Your task to perform on an android device: Go to Maps Image 0: 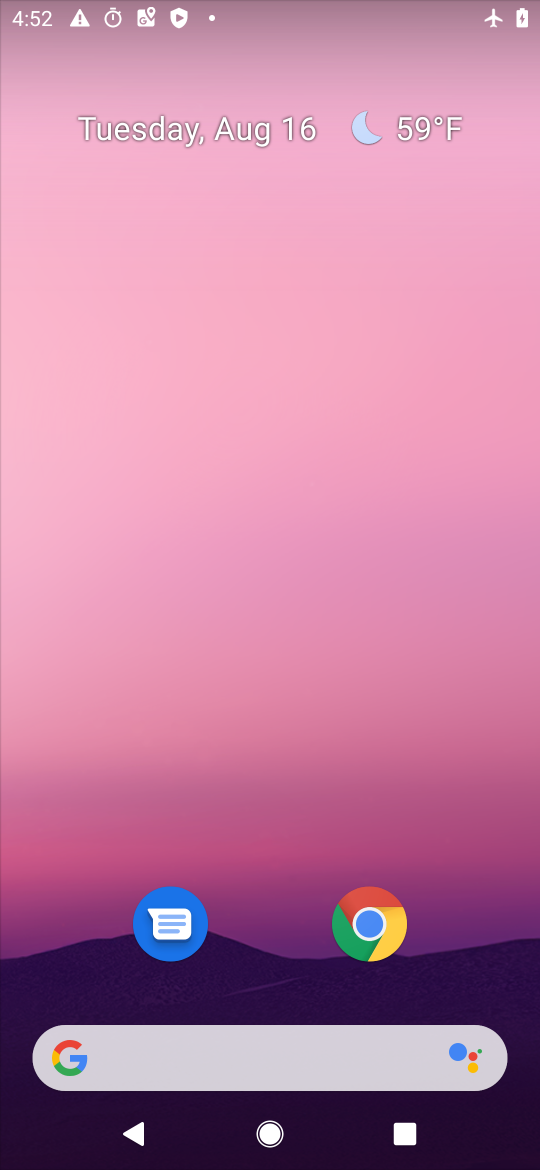
Step 0: drag from (268, 969) to (174, 324)
Your task to perform on an android device: Go to Maps Image 1: 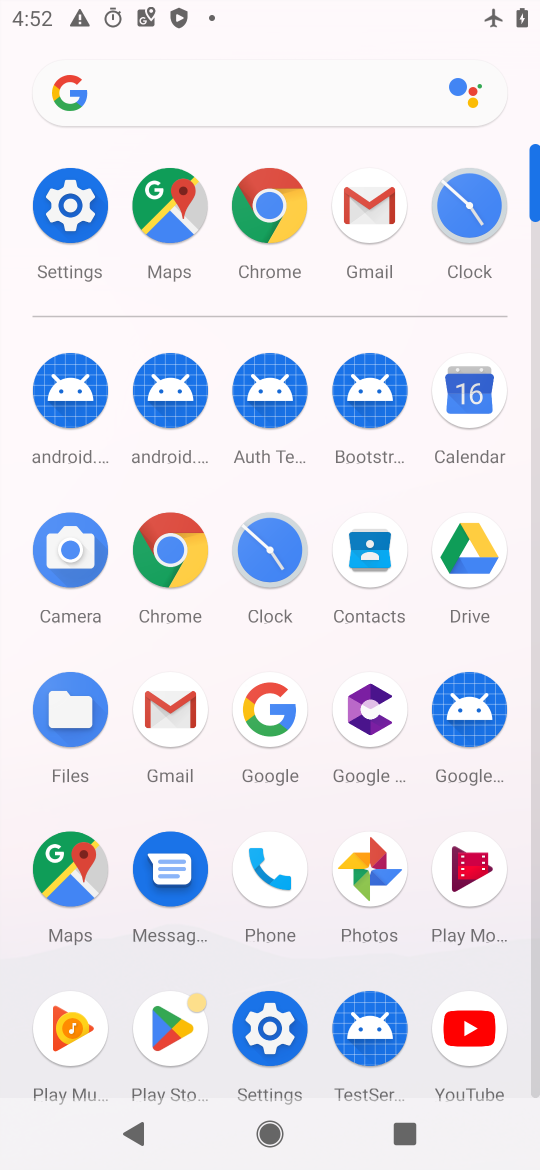
Step 1: click (167, 220)
Your task to perform on an android device: Go to Maps Image 2: 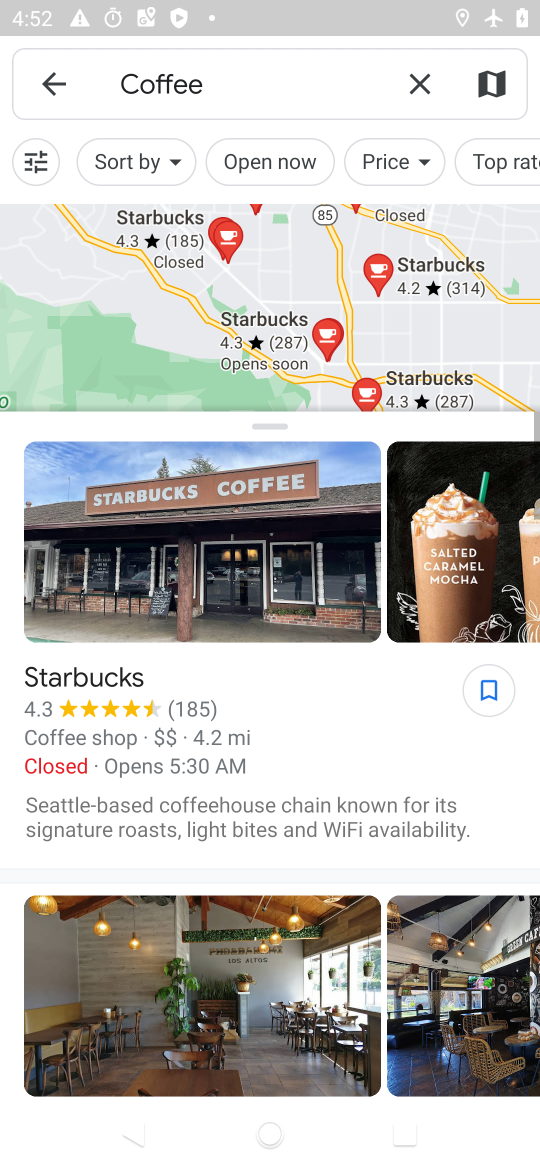
Step 2: task complete